Your task to perform on an android device: open chrome and create a bookmark for the current page Image 0: 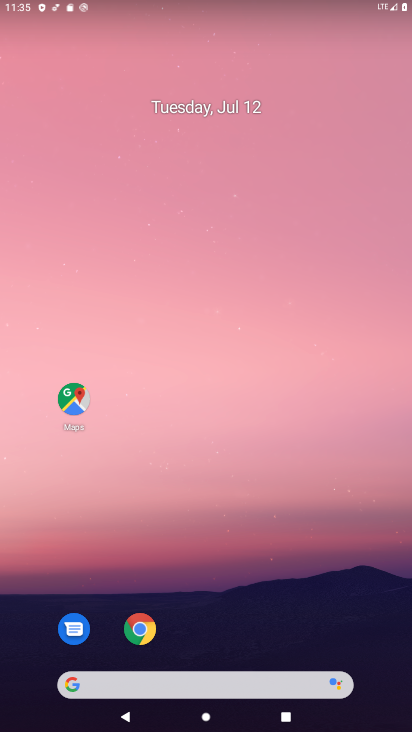
Step 0: click (116, 637)
Your task to perform on an android device: open chrome and create a bookmark for the current page Image 1: 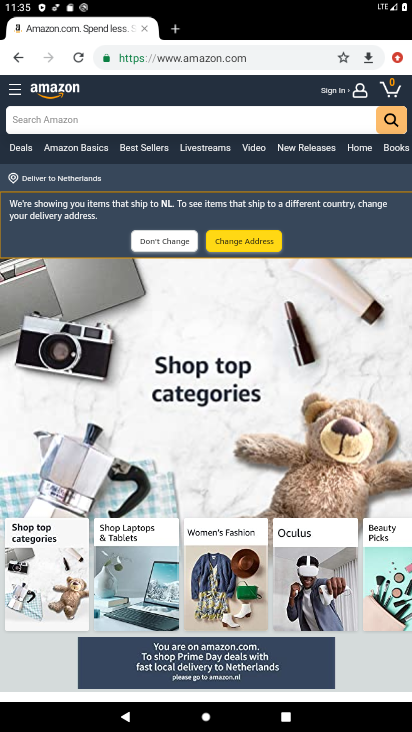
Step 1: click (344, 59)
Your task to perform on an android device: open chrome and create a bookmark for the current page Image 2: 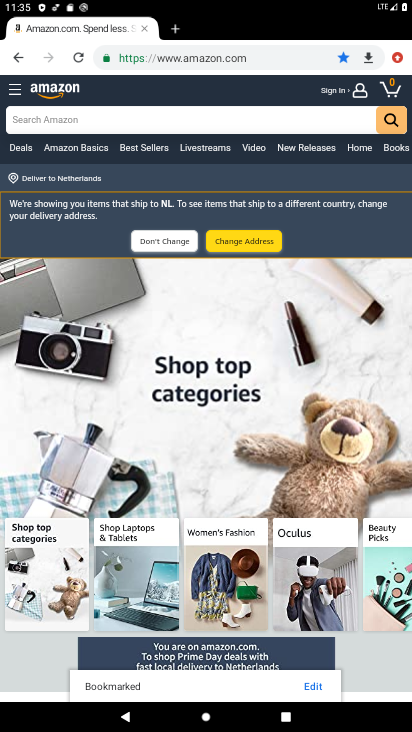
Step 2: task complete